Your task to perform on an android device: turn on wifi Image 0: 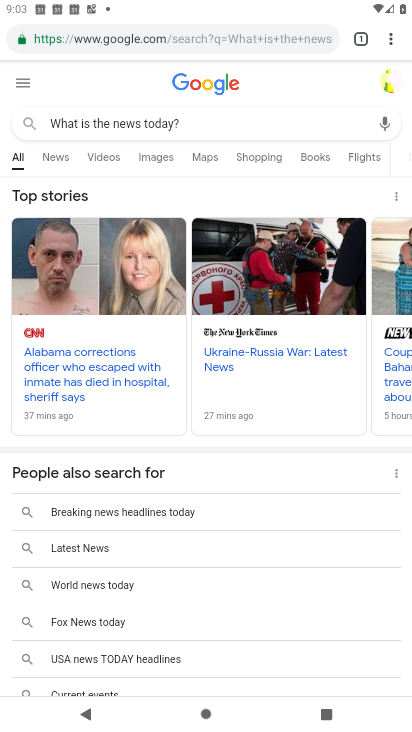
Step 0: press home button
Your task to perform on an android device: turn on wifi Image 1: 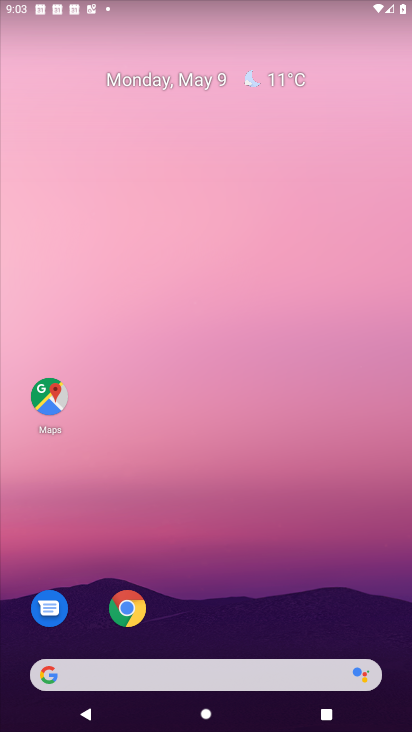
Step 1: drag from (166, 612) to (279, 96)
Your task to perform on an android device: turn on wifi Image 2: 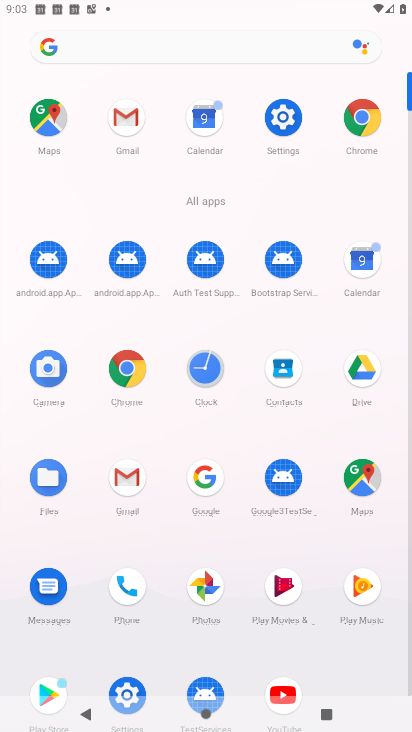
Step 2: click (283, 116)
Your task to perform on an android device: turn on wifi Image 3: 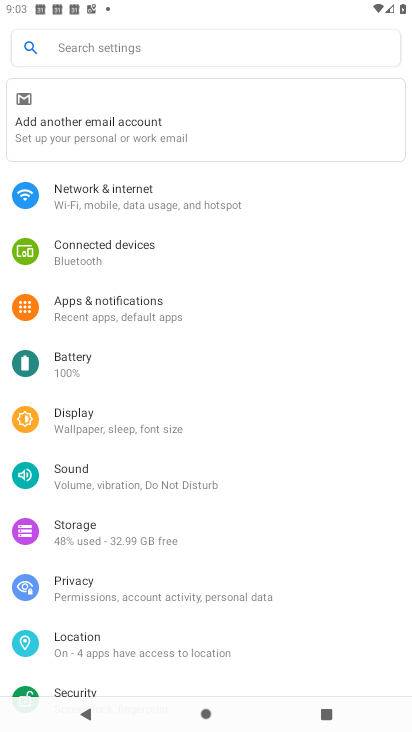
Step 3: click (136, 205)
Your task to perform on an android device: turn on wifi Image 4: 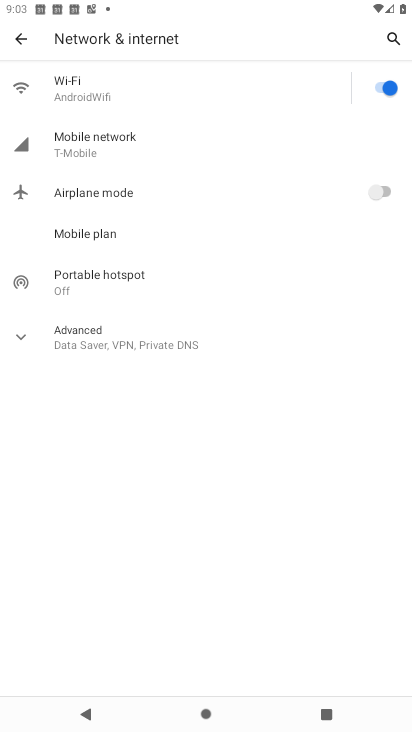
Step 4: click (120, 95)
Your task to perform on an android device: turn on wifi Image 5: 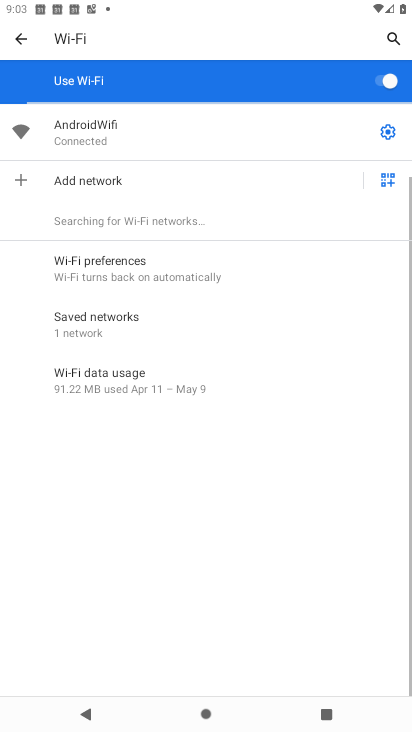
Step 5: task complete